Your task to perform on an android device: Open Google Image 0: 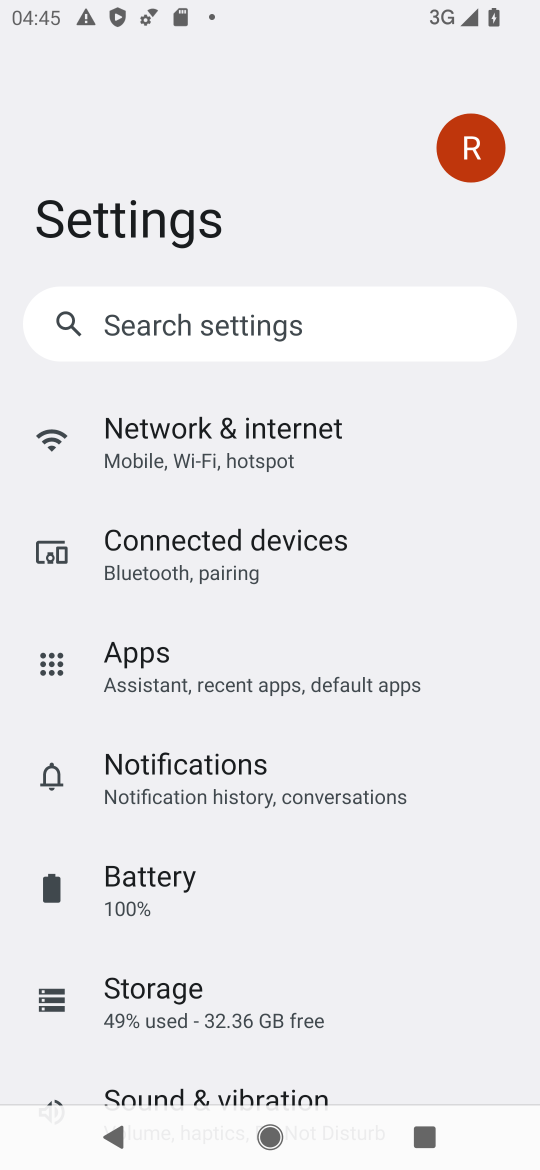
Step 0: press home button
Your task to perform on an android device: Open Google Image 1: 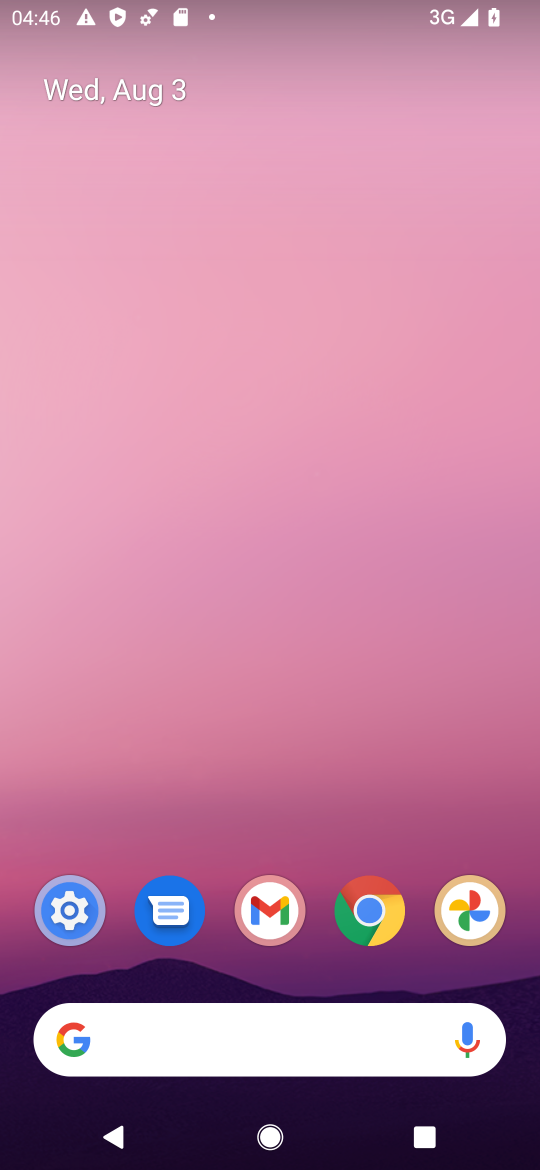
Step 1: drag from (336, 833) to (318, 4)
Your task to perform on an android device: Open Google Image 2: 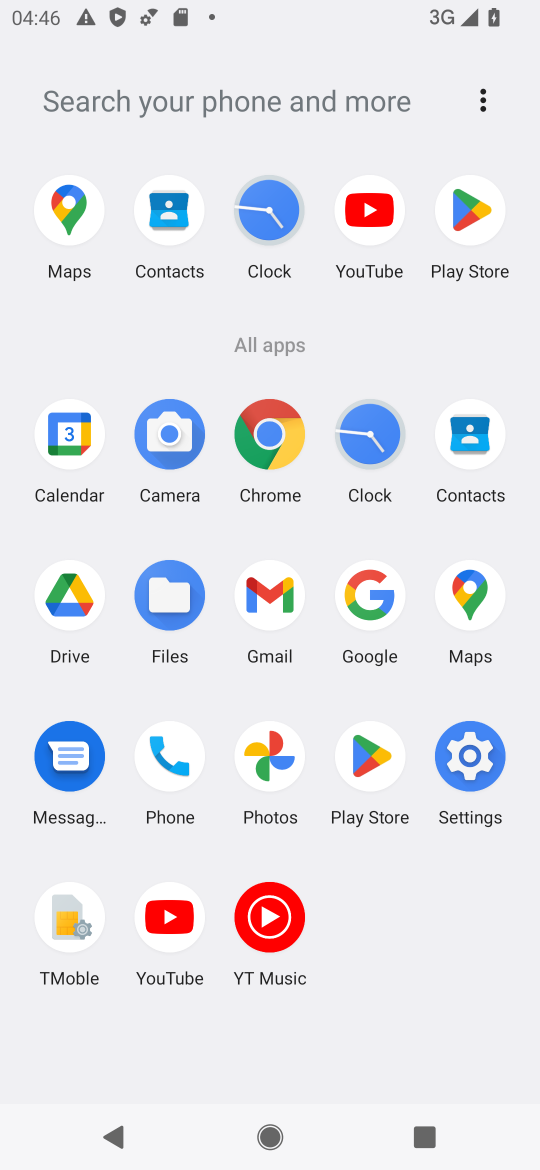
Step 2: click (376, 579)
Your task to perform on an android device: Open Google Image 3: 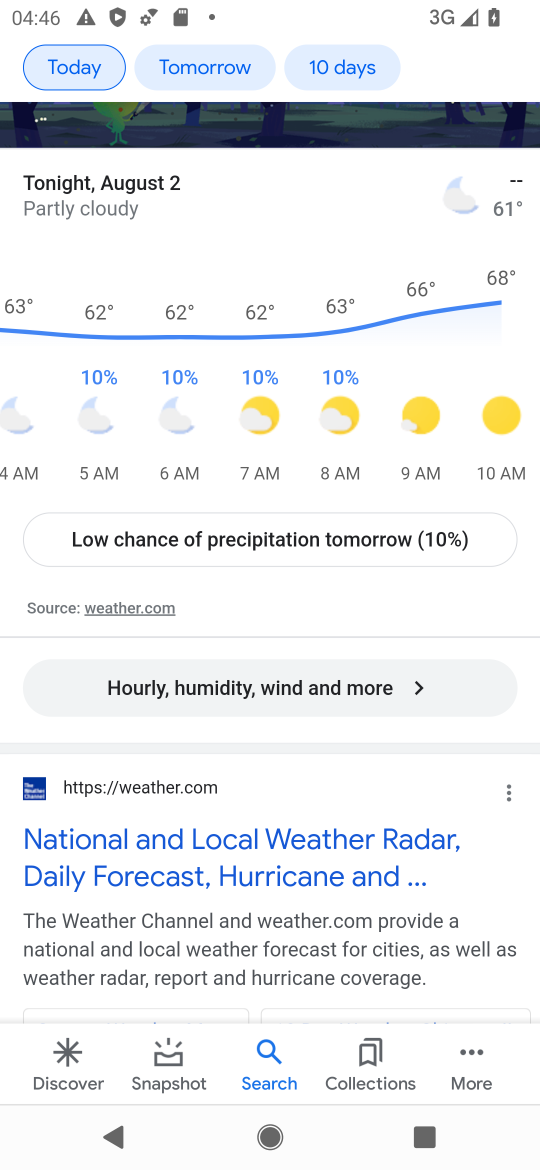
Step 3: drag from (280, 747) to (368, 17)
Your task to perform on an android device: Open Google Image 4: 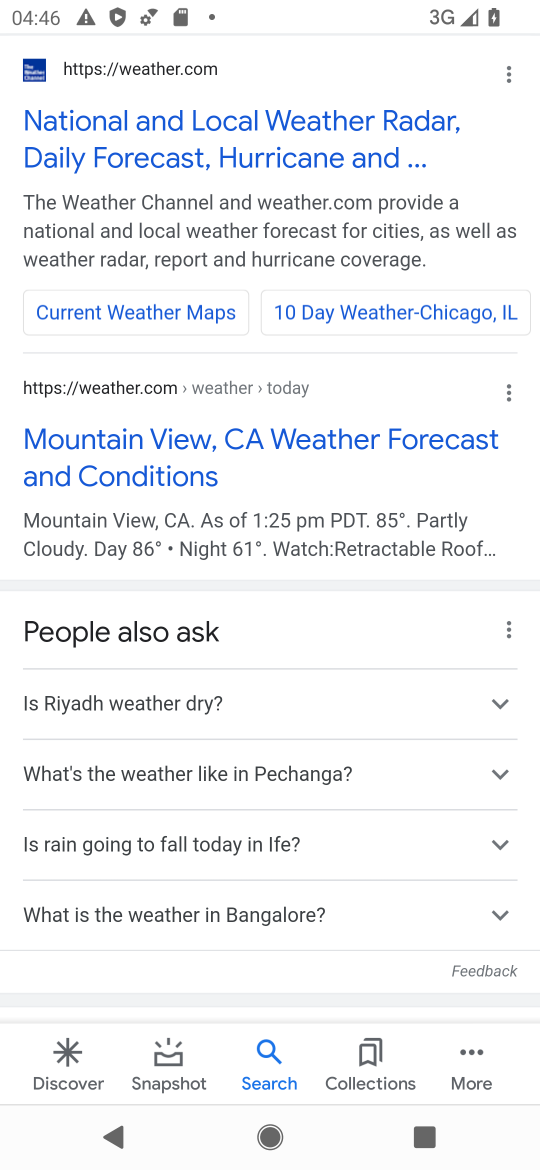
Step 4: click (366, 1066)
Your task to perform on an android device: Open Google Image 5: 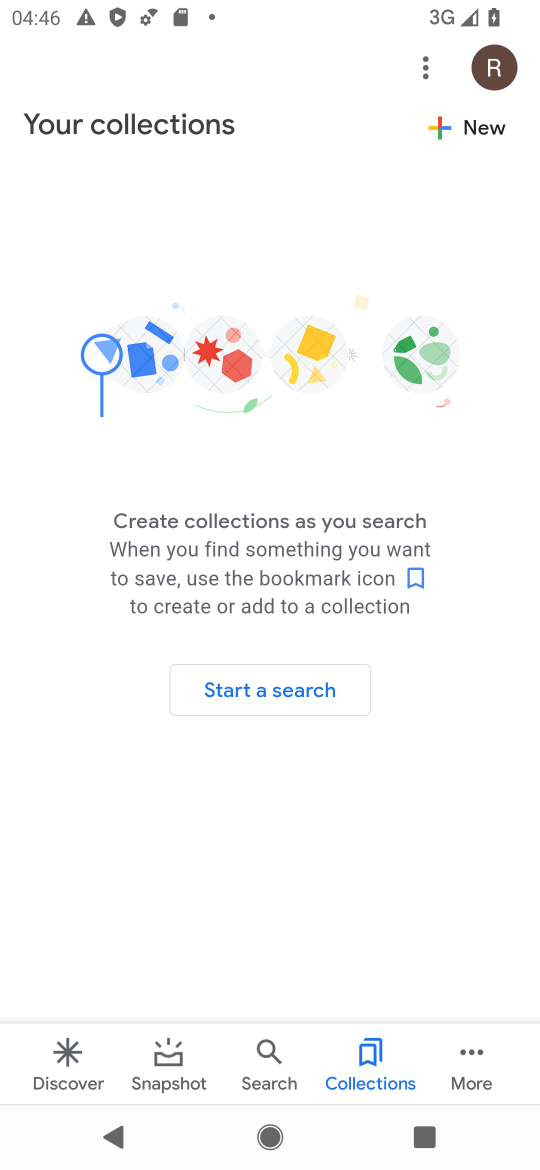
Step 5: click (460, 1051)
Your task to perform on an android device: Open Google Image 6: 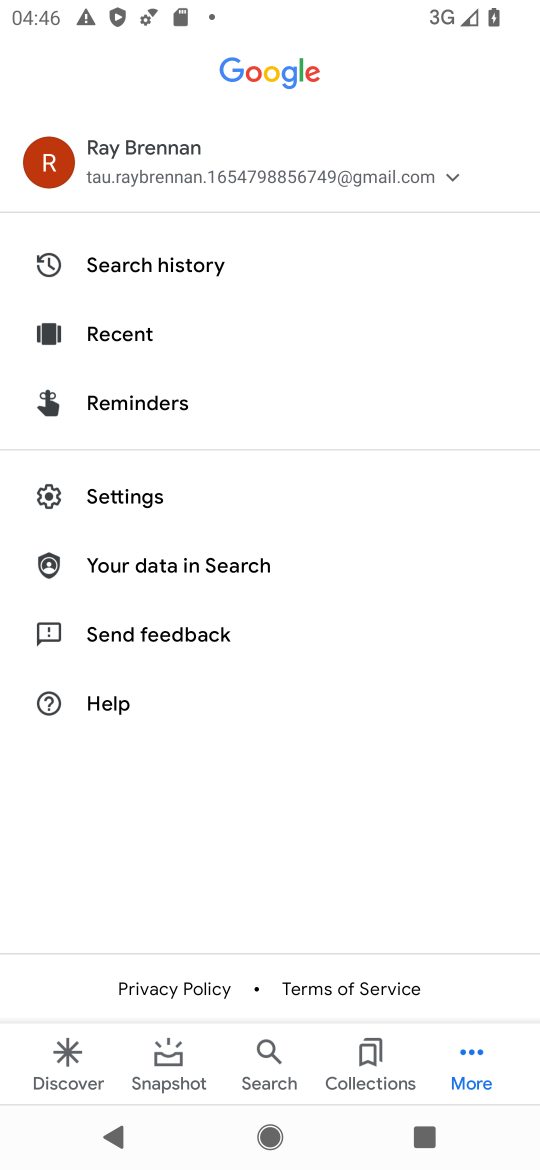
Step 6: task complete